Your task to perform on an android device: check out phone information Image 0: 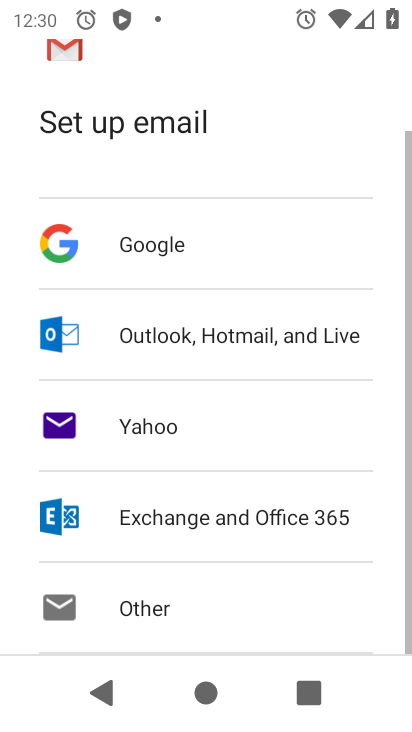
Step 0: press home button
Your task to perform on an android device: check out phone information Image 1: 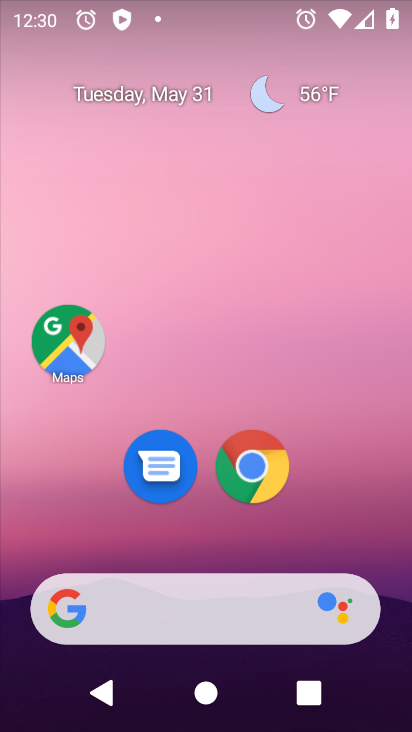
Step 1: drag from (178, 621) to (236, 0)
Your task to perform on an android device: check out phone information Image 2: 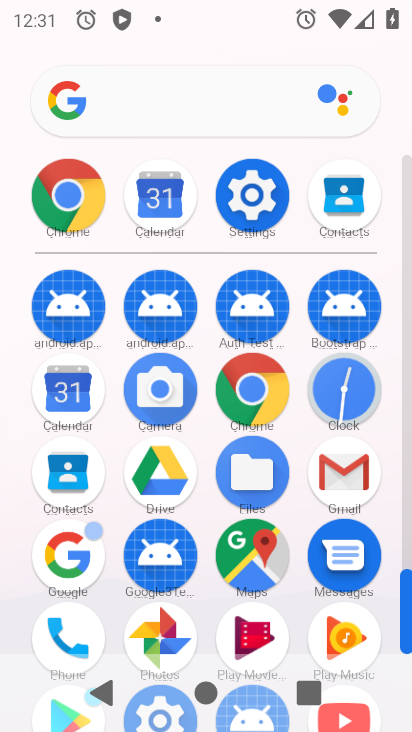
Step 2: click (238, 197)
Your task to perform on an android device: check out phone information Image 3: 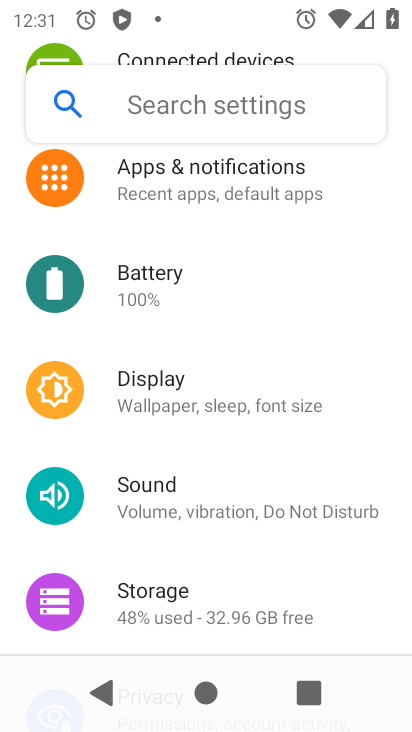
Step 3: drag from (221, 407) to (0, 430)
Your task to perform on an android device: check out phone information Image 4: 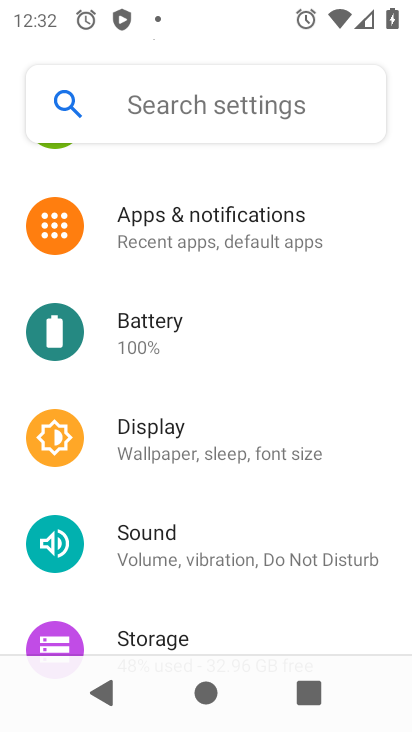
Step 4: drag from (191, 596) to (133, 82)
Your task to perform on an android device: check out phone information Image 5: 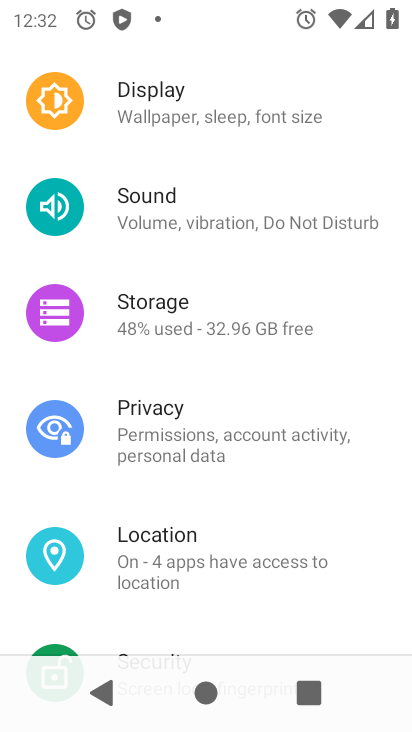
Step 5: drag from (189, 572) to (133, 88)
Your task to perform on an android device: check out phone information Image 6: 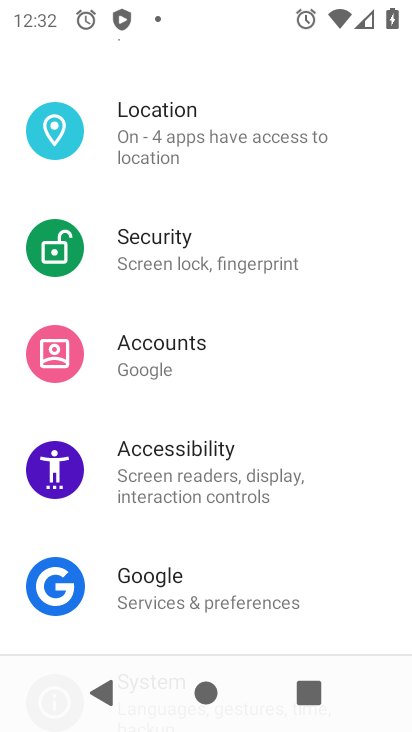
Step 6: drag from (210, 576) to (202, 67)
Your task to perform on an android device: check out phone information Image 7: 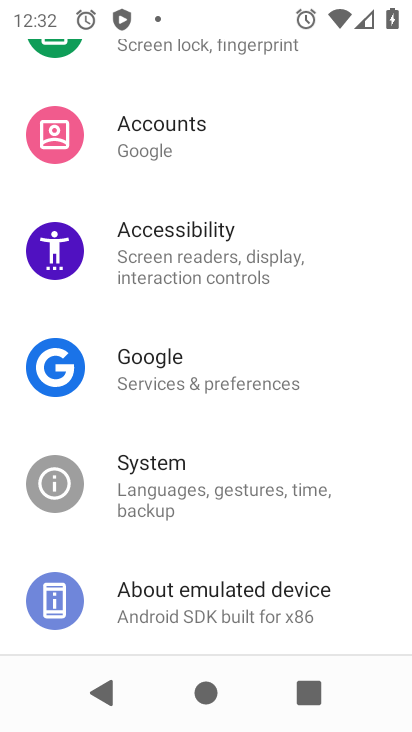
Step 7: click (193, 608)
Your task to perform on an android device: check out phone information Image 8: 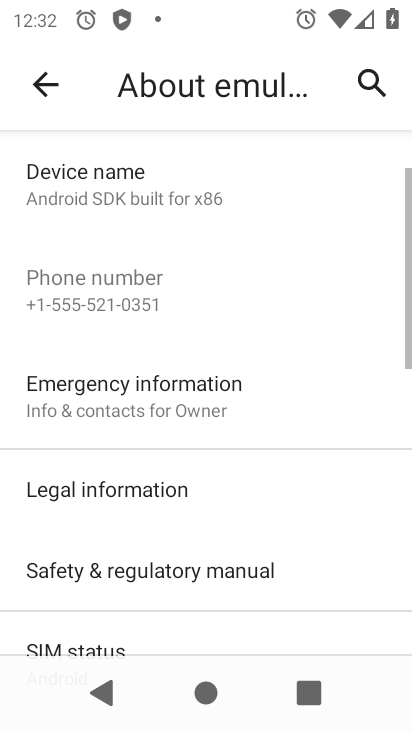
Step 8: task complete